Your task to perform on an android device: Turn off the flashlight Image 0: 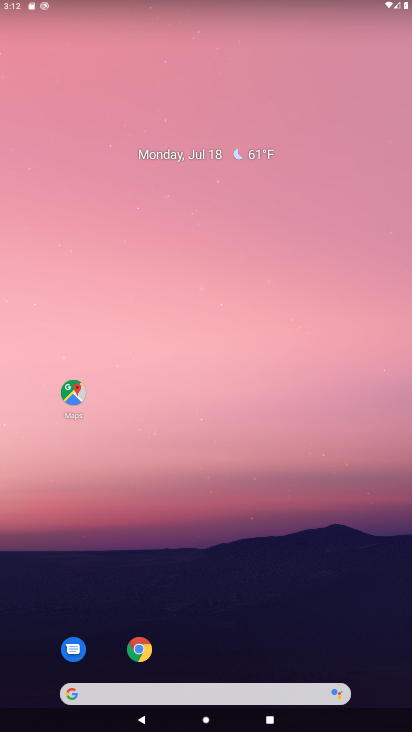
Step 0: drag from (247, 608) to (220, 148)
Your task to perform on an android device: Turn off the flashlight Image 1: 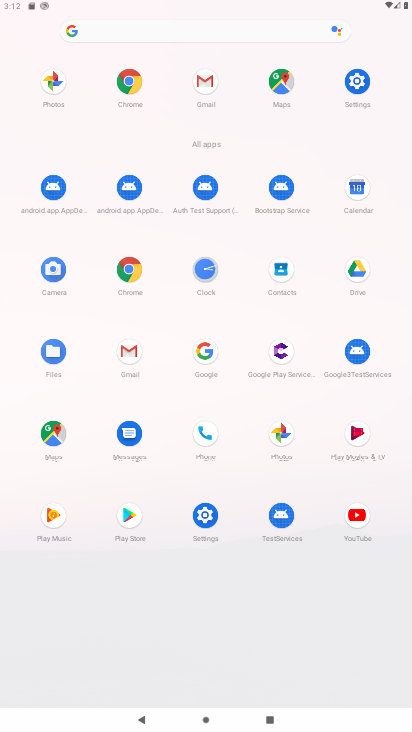
Step 1: click (363, 72)
Your task to perform on an android device: Turn off the flashlight Image 2: 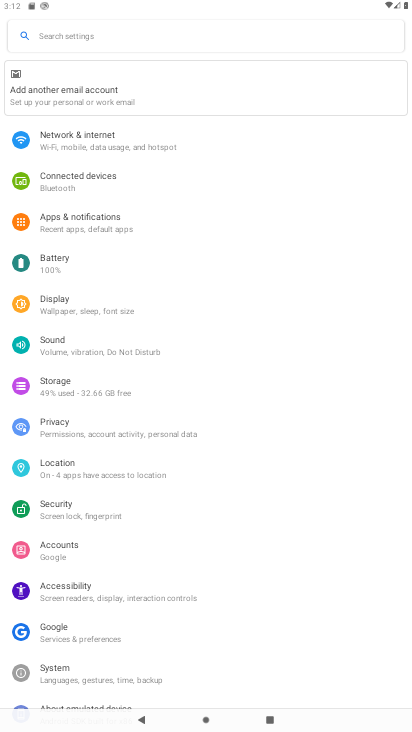
Step 2: task complete